Your task to perform on an android device: Open notification settings Image 0: 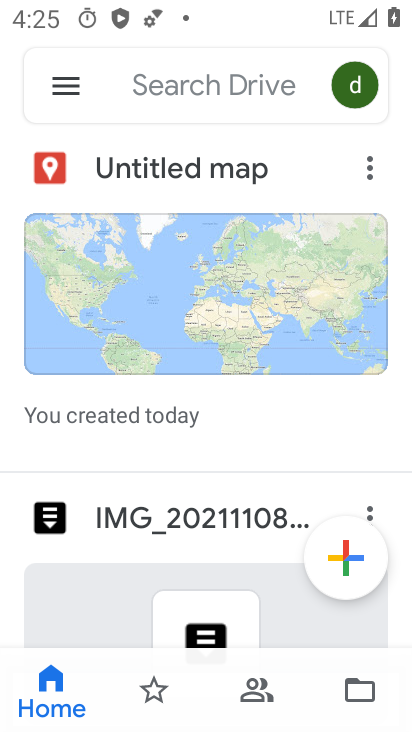
Step 0: press home button
Your task to perform on an android device: Open notification settings Image 1: 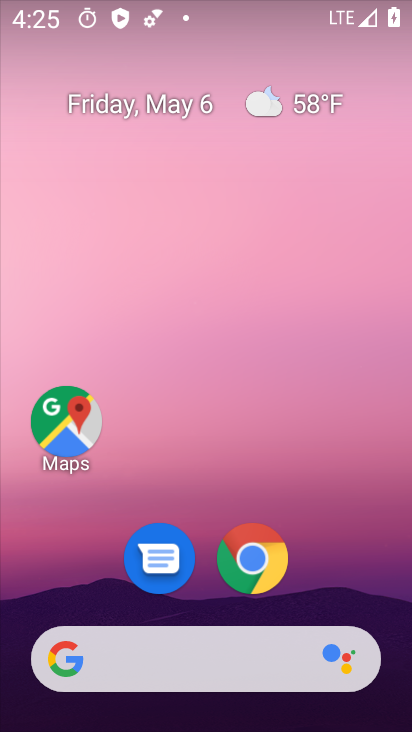
Step 1: drag from (296, 582) to (283, 3)
Your task to perform on an android device: Open notification settings Image 2: 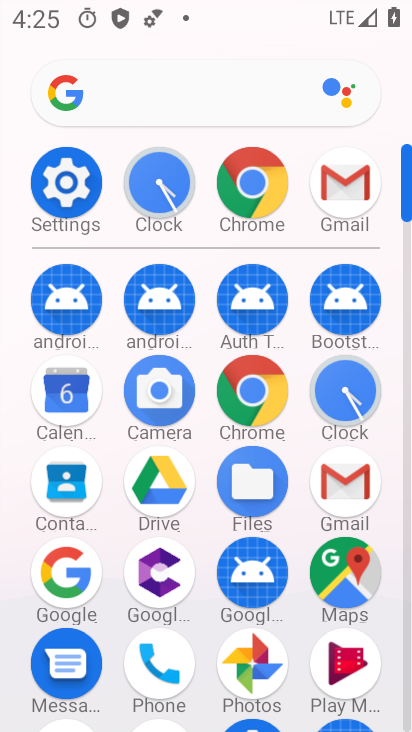
Step 2: click (73, 202)
Your task to perform on an android device: Open notification settings Image 3: 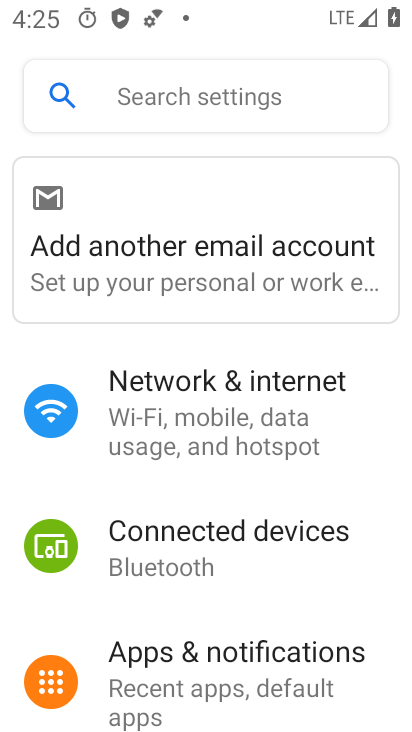
Step 3: click (292, 668)
Your task to perform on an android device: Open notification settings Image 4: 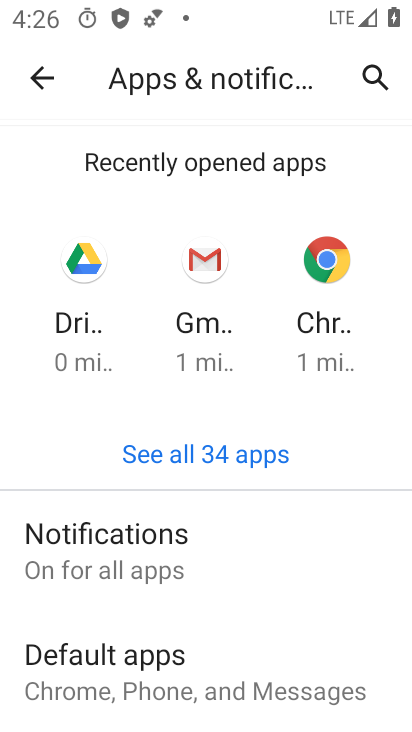
Step 4: click (210, 562)
Your task to perform on an android device: Open notification settings Image 5: 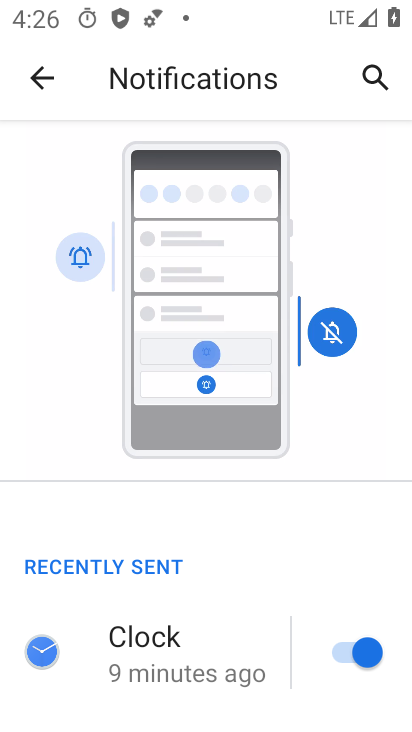
Step 5: drag from (288, 645) to (285, 190)
Your task to perform on an android device: Open notification settings Image 6: 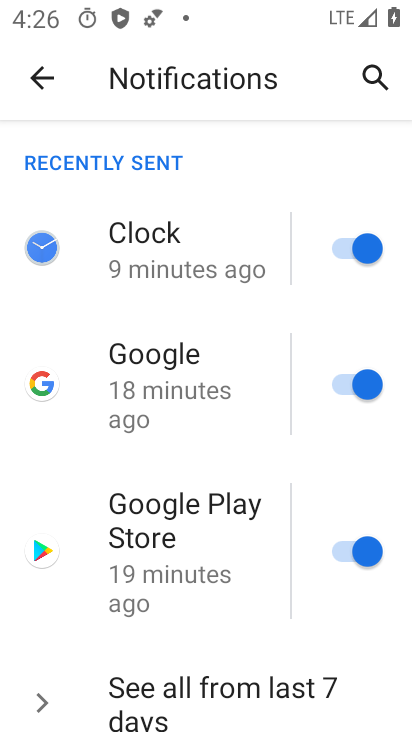
Step 6: click (350, 248)
Your task to perform on an android device: Open notification settings Image 7: 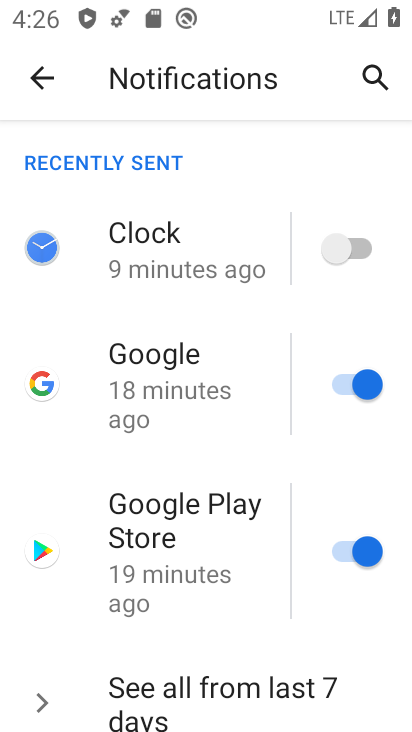
Step 7: click (338, 388)
Your task to perform on an android device: Open notification settings Image 8: 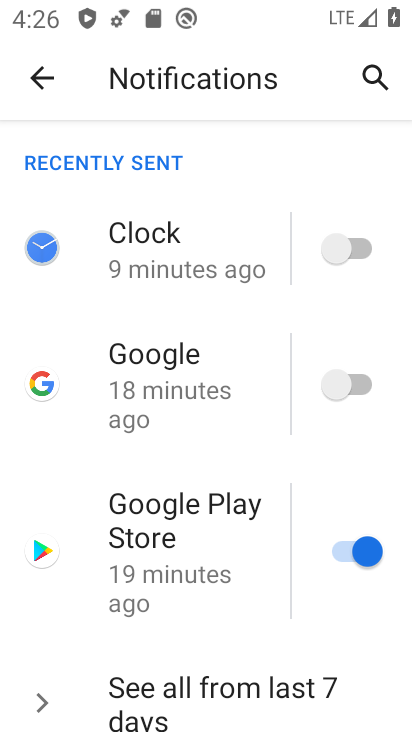
Step 8: click (348, 557)
Your task to perform on an android device: Open notification settings Image 9: 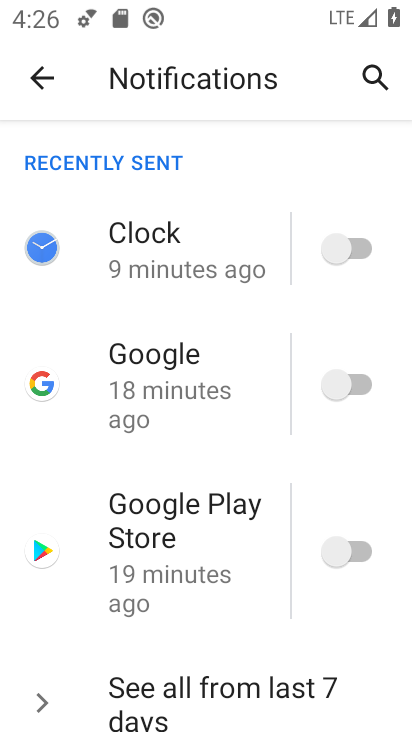
Step 9: task complete